Your task to perform on an android device: find snoozed emails in the gmail app Image 0: 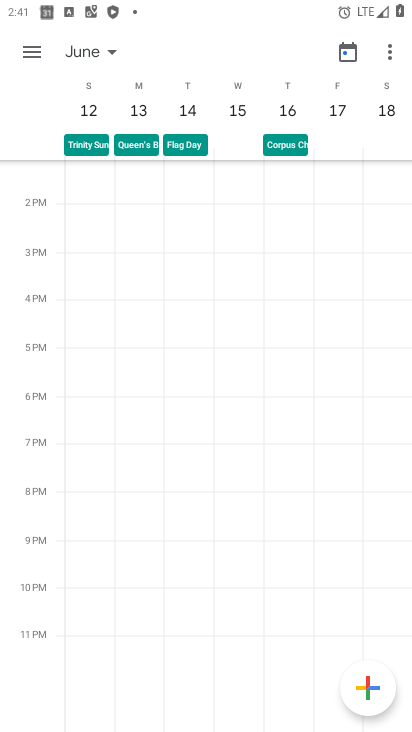
Step 0: press home button
Your task to perform on an android device: find snoozed emails in the gmail app Image 1: 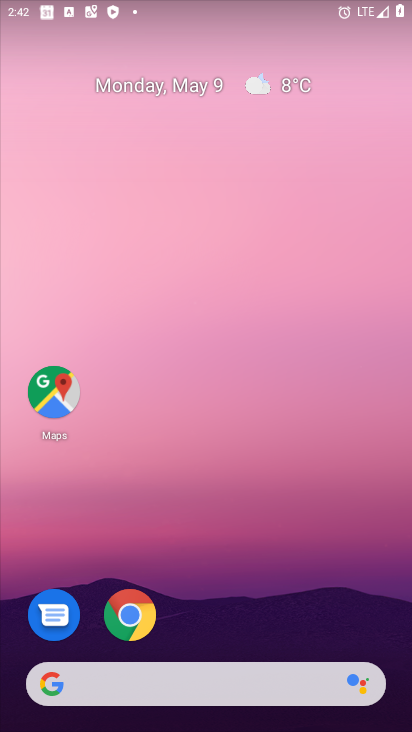
Step 1: drag from (305, 612) to (295, 16)
Your task to perform on an android device: find snoozed emails in the gmail app Image 2: 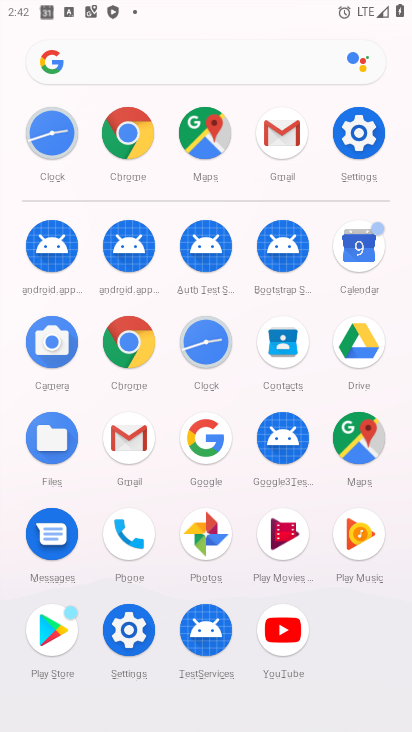
Step 2: click (124, 435)
Your task to perform on an android device: find snoozed emails in the gmail app Image 3: 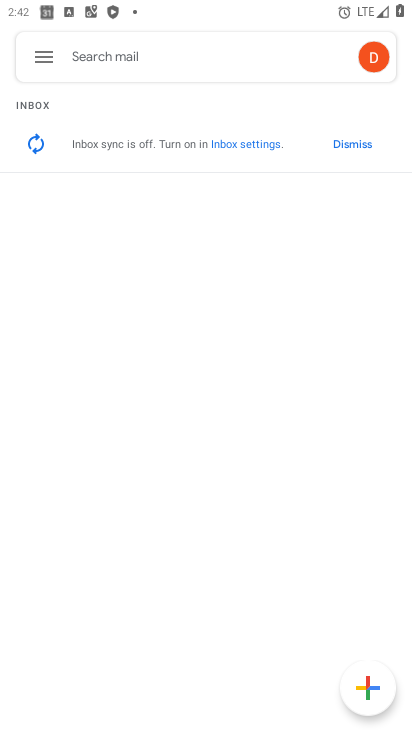
Step 3: click (35, 55)
Your task to perform on an android device: find snoozed emails in the gmail app Image 4: 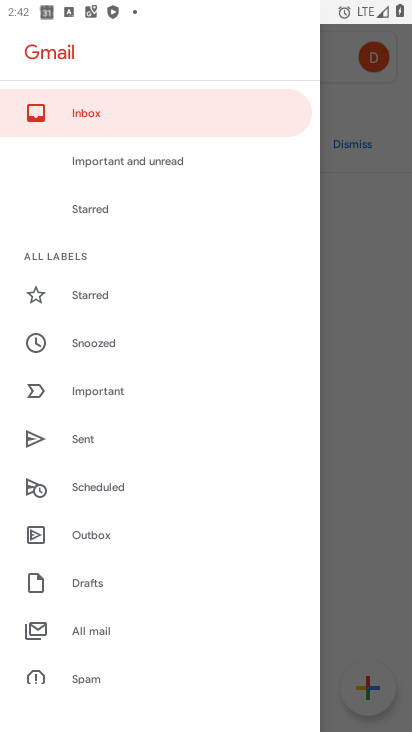
Step 4: click (88, 347)
Your task to perform on an android device: find snoozed emails in the gmail app Image 5: 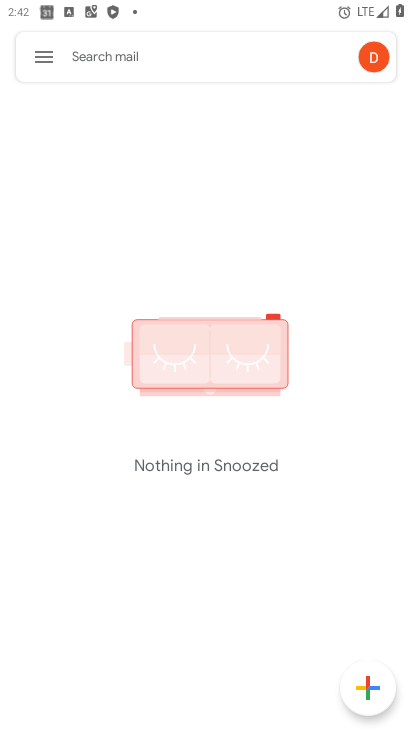
Step 5: task complete